Your task to perform on an android device: Go to Yahoo.com Image 0: 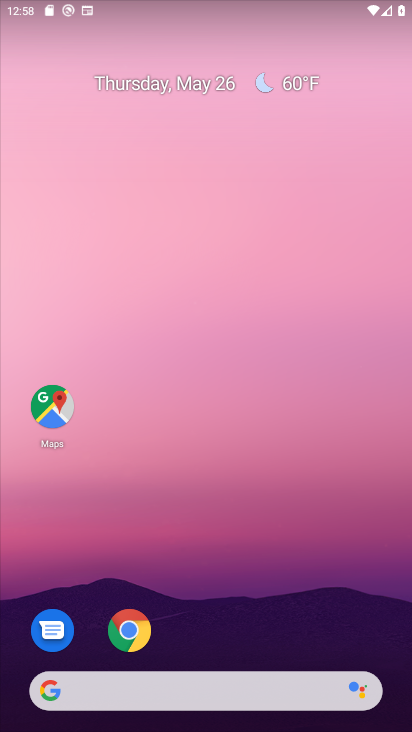
Step 0: drag from (276, 621) to (246, 60)
Your task to perform on an android device: Go to Yahoo.com Image 1: 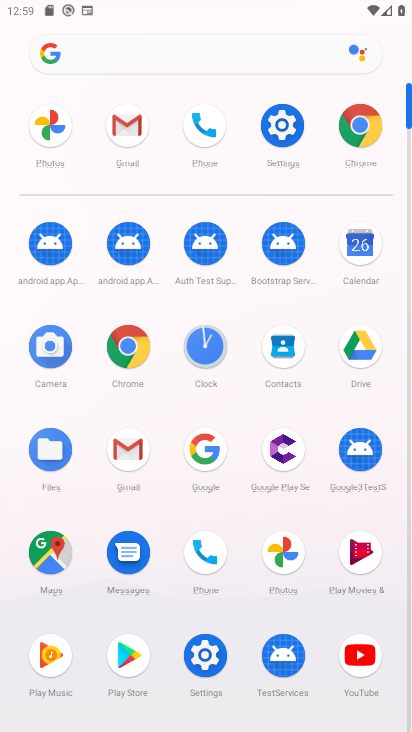
Step 1: click (382, 120)
Your task to perform on an android device: Go to Yahoo.com Image 2: 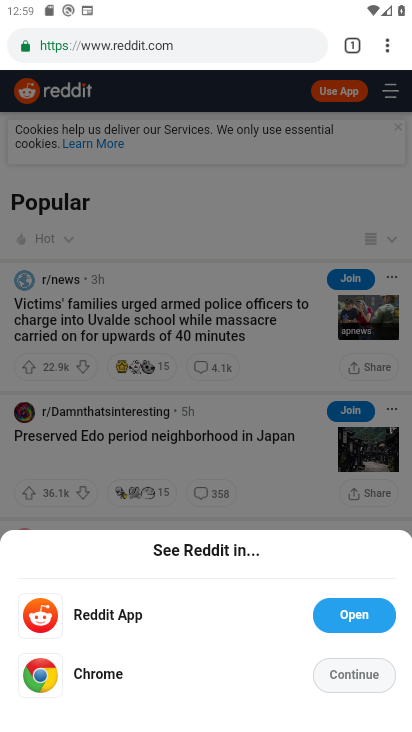
Step 2: click (178, 44)
Your task to perform on an android device: Go to Yahoo.com Image 3: 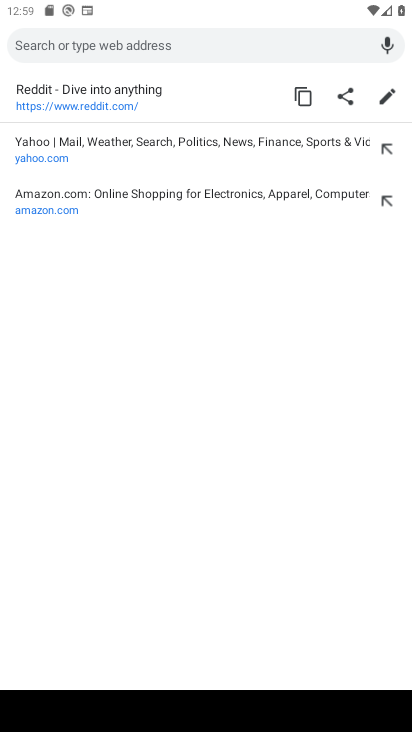
Step 3: click (95, 152)
Your task to perform on an android device: Go to Yahoo.com Image 4: 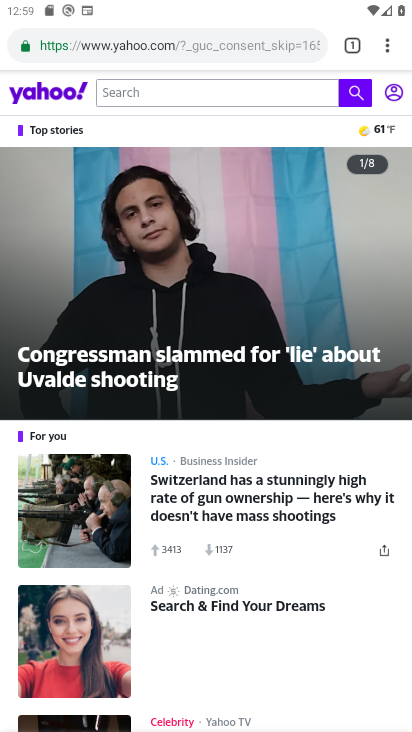
Step 4: task complete